Your task to perform on an android device: What's US dollar exchange rate against the Japanese Yen? Image 0: 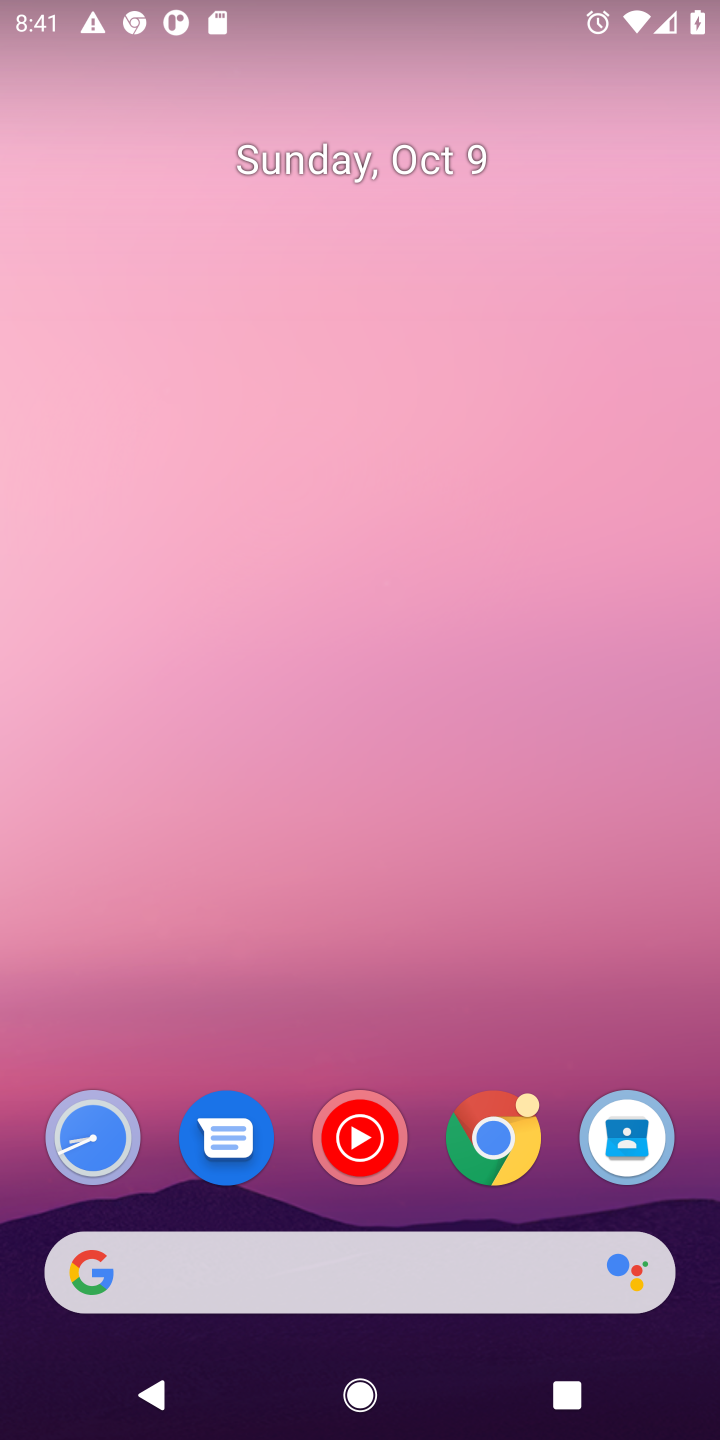
Step 0: drag from (258, 1210) to (325, 369)
Your task to perform on an android device: What's US dollar exchange rate against the Japanese Yen? Image 1: 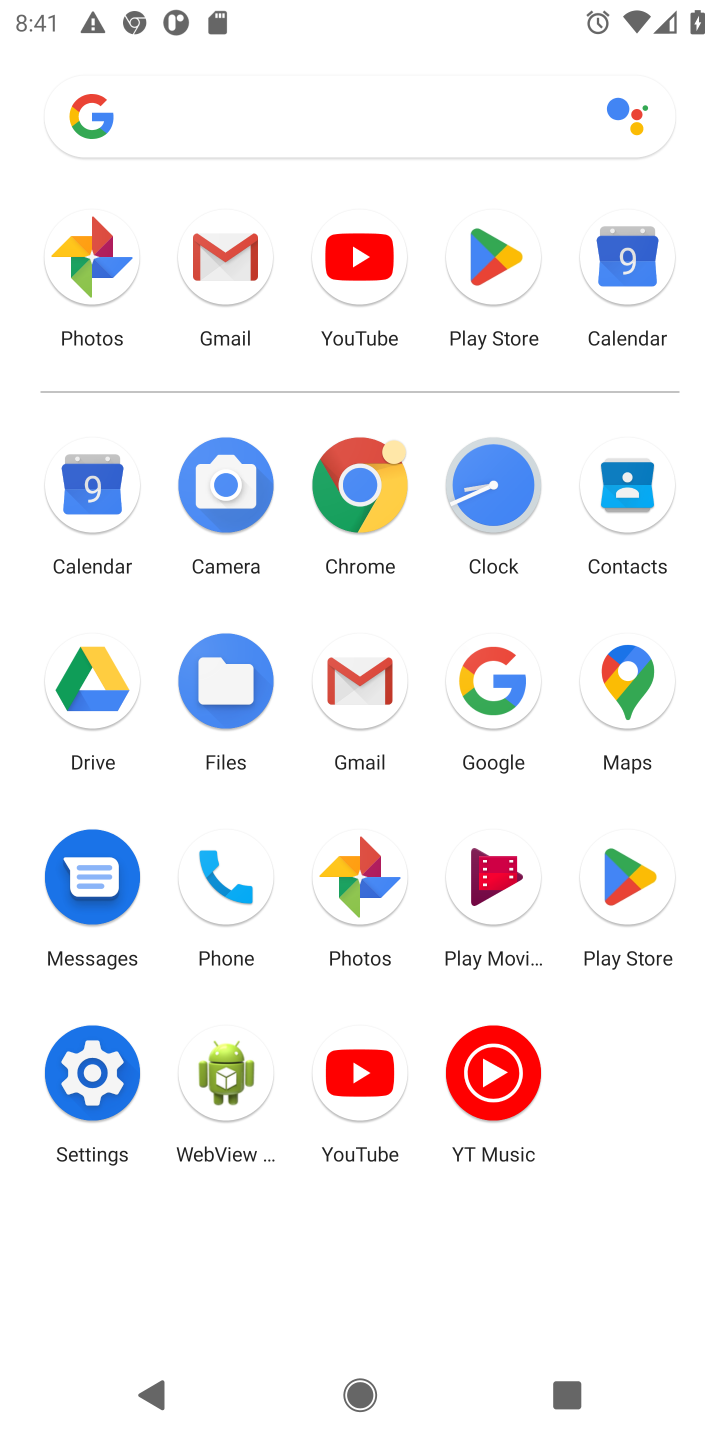
Step 1: click (502, 680)
Your task to perform on an android device: What's US dollar exchange rate against the Japanese Yen? Image 2: 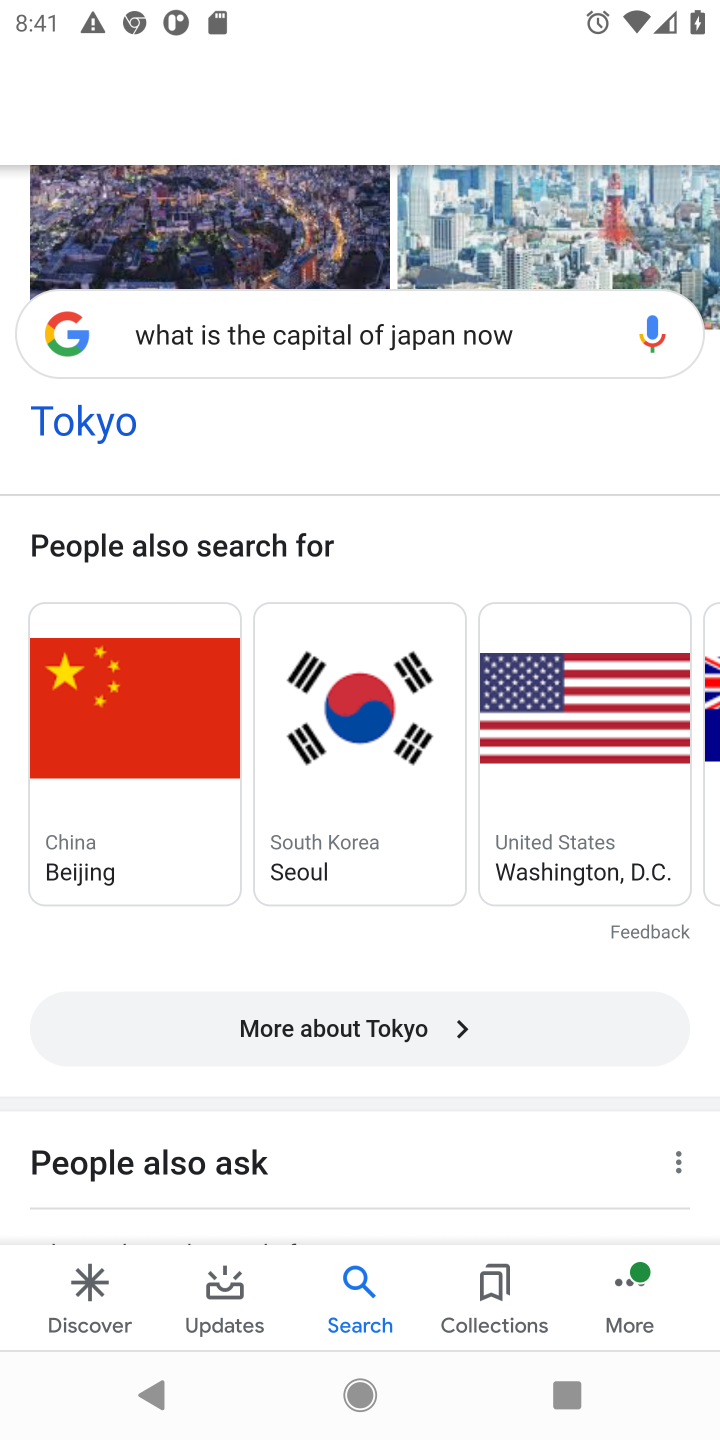
Step 2: click (405, 333)
Your task to perform on an android device: What's US dollar exchange rate against the Japanese Yen? Image 3: 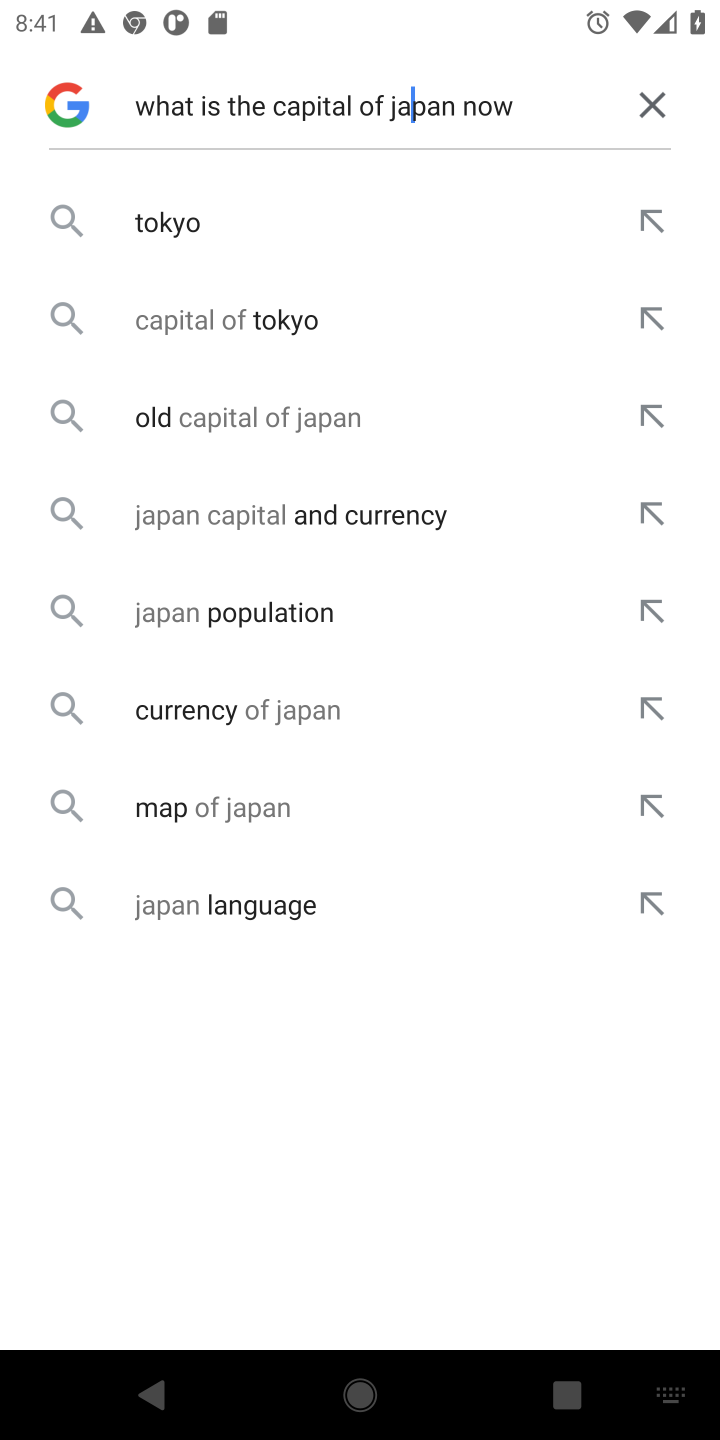
Step 3: click (629, 110)
Your task to perform on an android device: What's US dollar exchange rate against the Japanese Yen? Image 4: 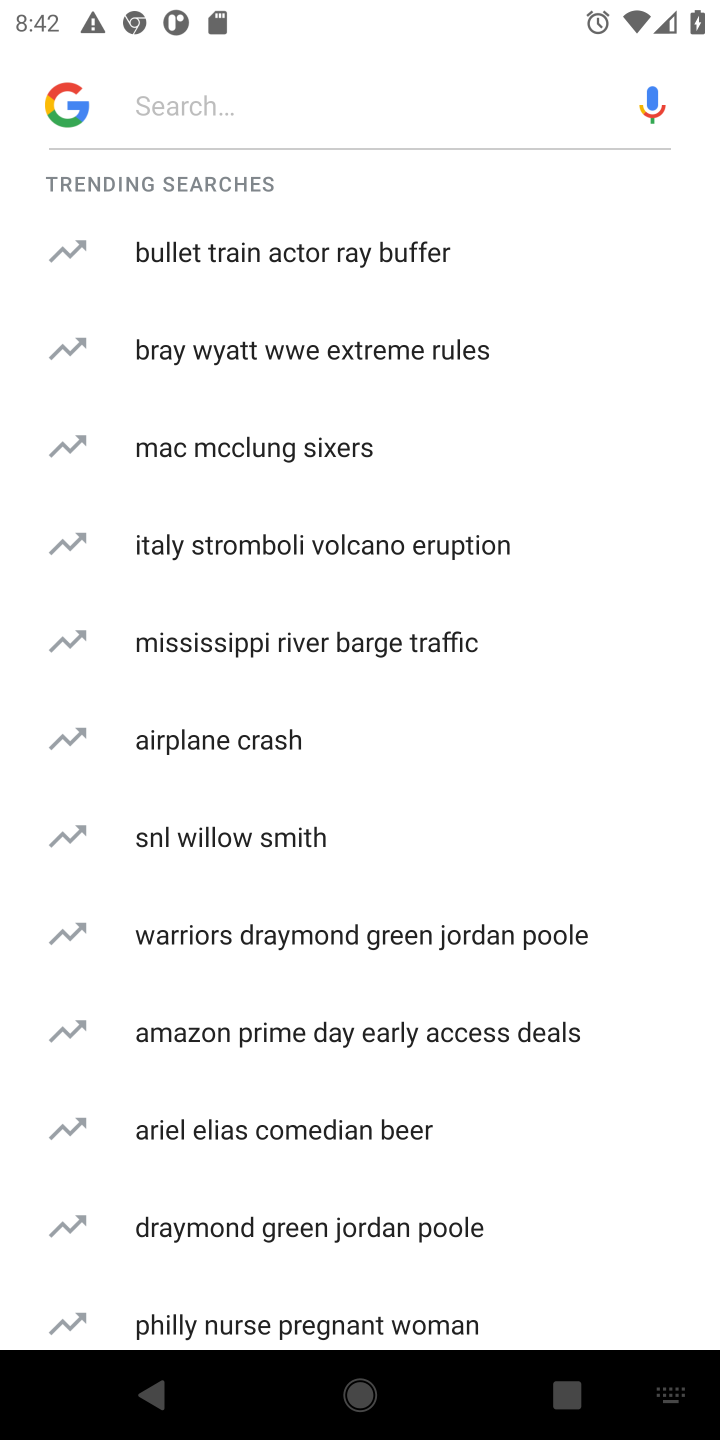
Step 4: click (342, 94)
Your task to perform on an android device: What's US dollar exchange rate against the Japanese Yen? Image 5: 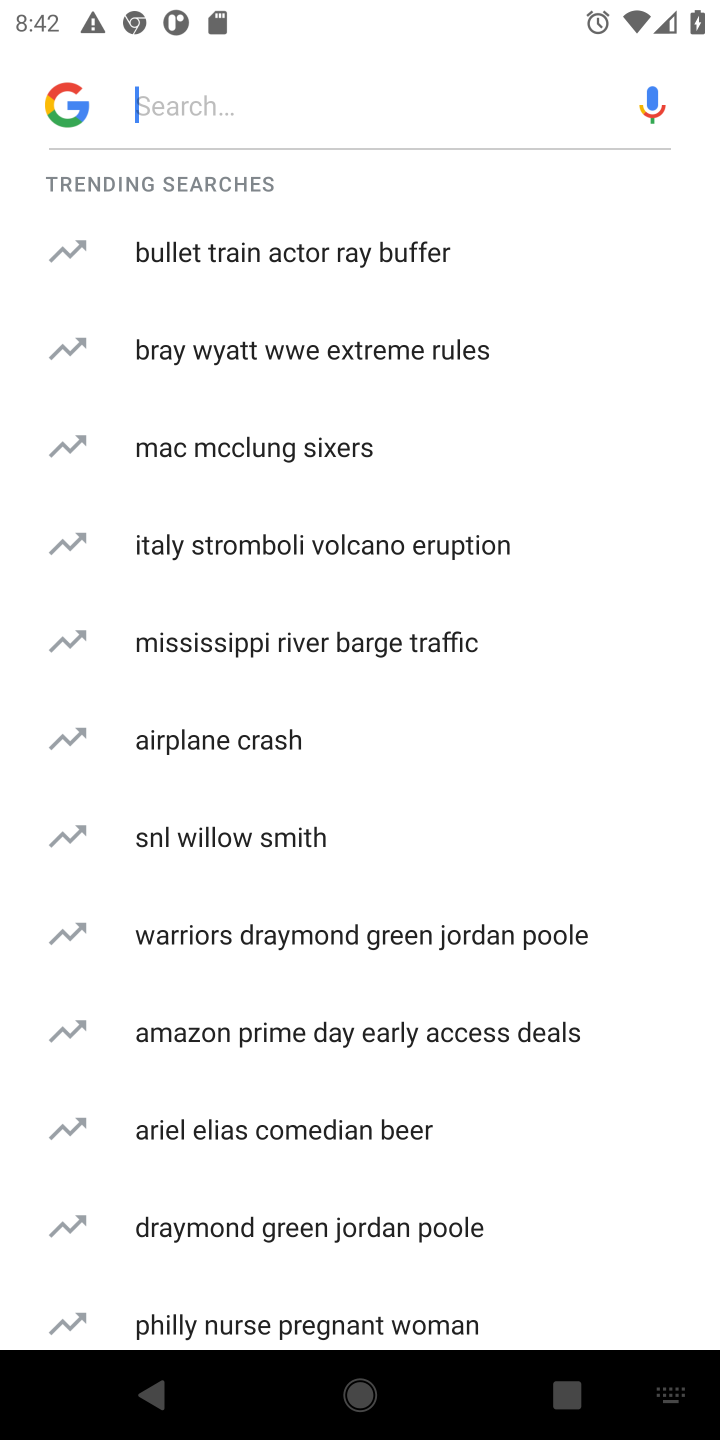
Step 5: type "What's US dollar exchange rate against the Japanese Yen? "
Your task to perform on an android device: What's US dollar exchange rate against the Japanese Yen? Image 6: 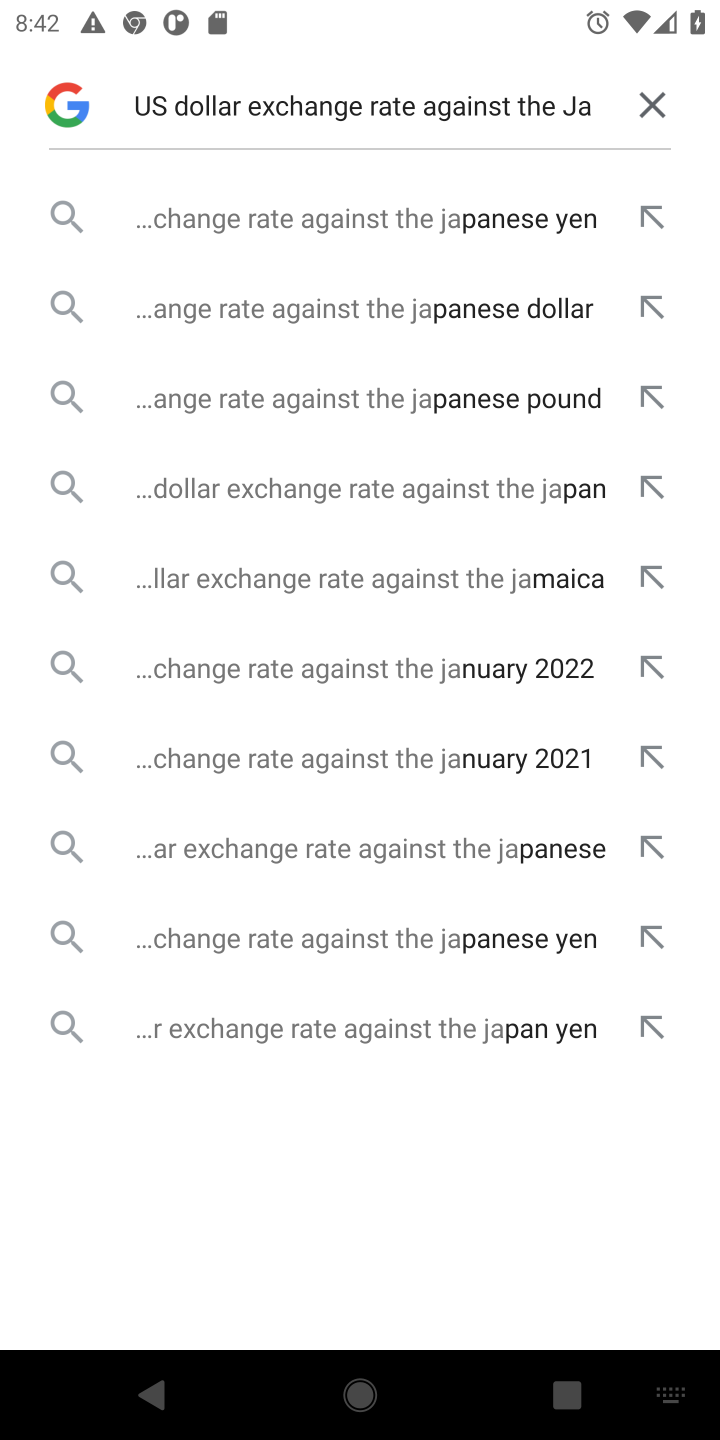
Step 6: click (365, 219)
Your task to perform on an android device: What's US dollar exchange rate against the Japanese Yen? Image 7: 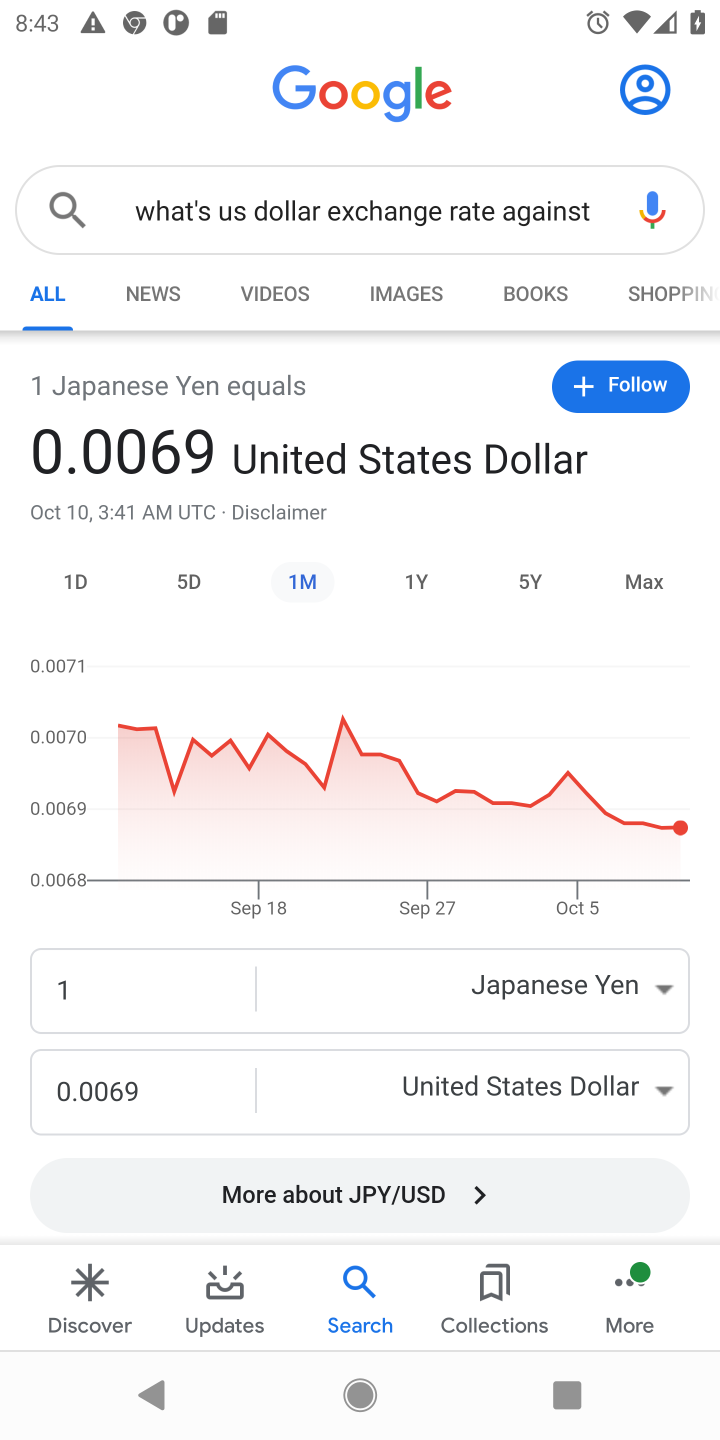
Step 7: task complete